Your task to perform on an android device: Open the Play Movies app and select the watchlist tab. Image 0: 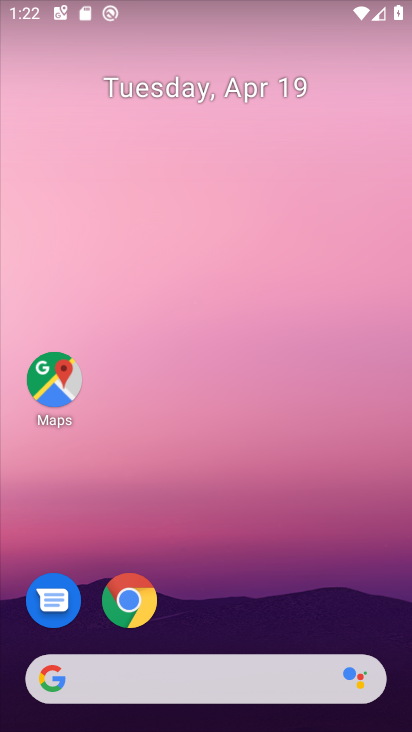
Step 0: drag from (278, 567) to (238, 33)
Your task to perform on an android device: Open the Play Movies app and select the watchlist tab. Image 1: 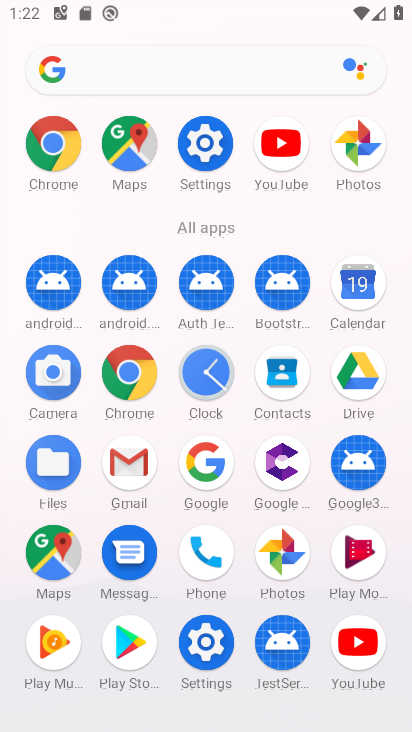
Step 1: drag from (6, 554) to (13, 251)
Your task to perform on an android device: Open the Play Movies app and select the watchlist tab. Image 2: 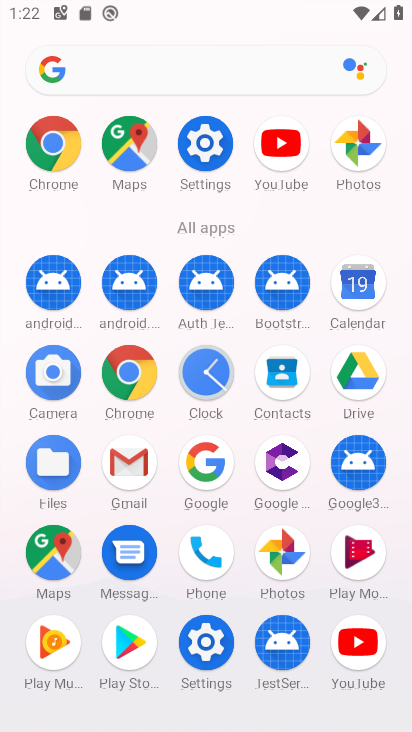
Step 2: click (353, 558)
Your task to perform on an android device: Open the Play Movies app and select the watchlist tab. Image 3: 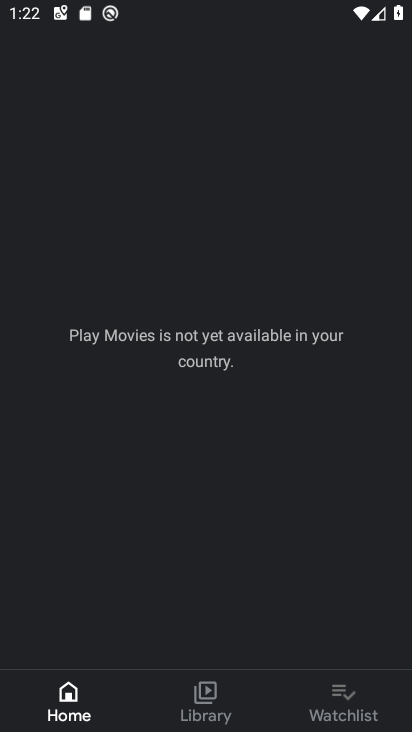
Step 3: click (330, 672)
Your task to perform on an android device: Open the Play Movies app and select the watchlist tab. Image 4: 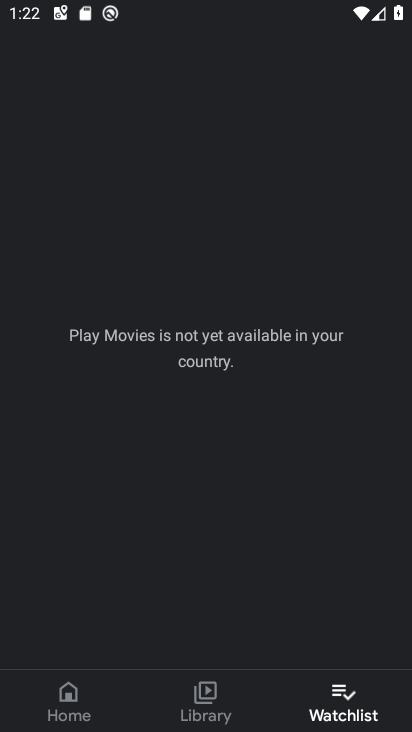
Step 4: task complete